Your task to perform on an android device: Go to calendar. Show me events next week Image 0: 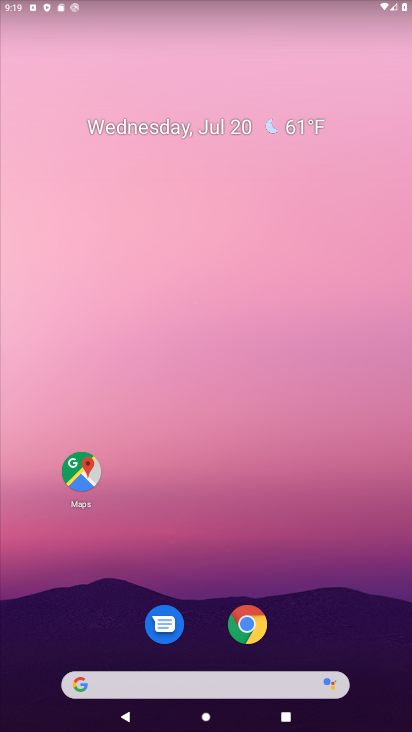
Step 0: drag from (201, 543) to (201, 232)
Your task to perform on an android device: Go to calendar. Show me events next week Image 1: 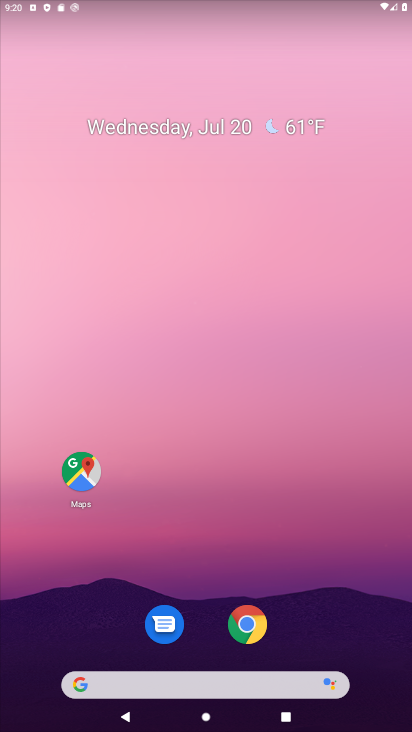
Step 1: drag from (180, 582) to (209, 181)
Your task to perform on an android device: Go to calendar. Show me events next week Image 2: 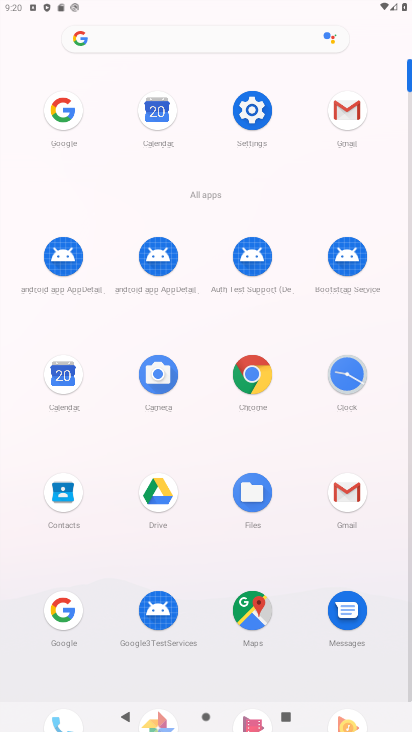
Step 2: click (73, 384)
Your task to perform on an android device: Go to calendar. Show me events next week Image 3: 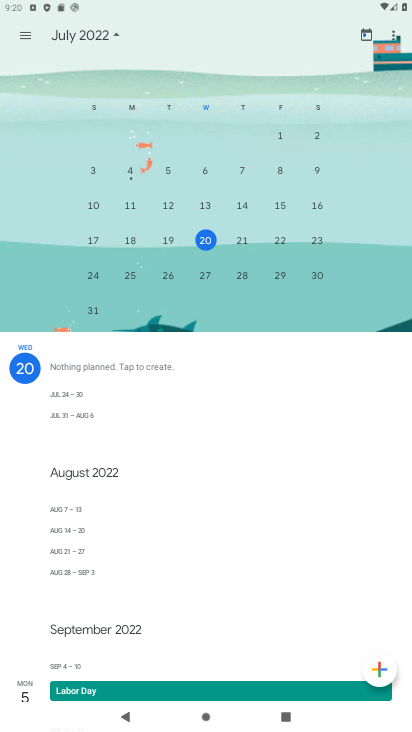
Step 3: click (95, 275)
Your task to perform on an android device: Go to calendar. Show me events next week Image 4: 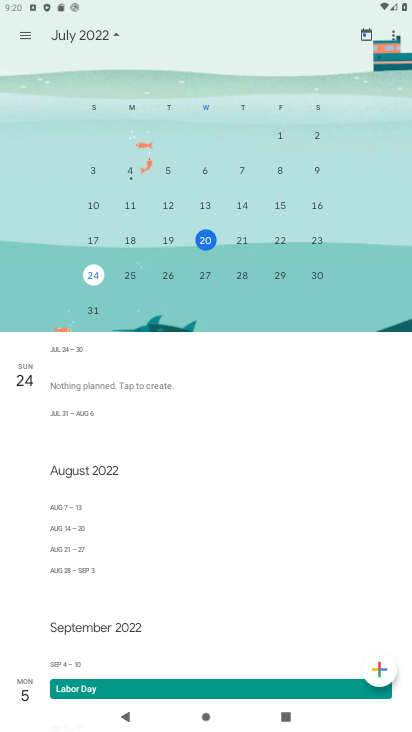
Step 4: click (117, 282)
Your task to perform on an android device: Go to calendar. Show me events next week Image 5: 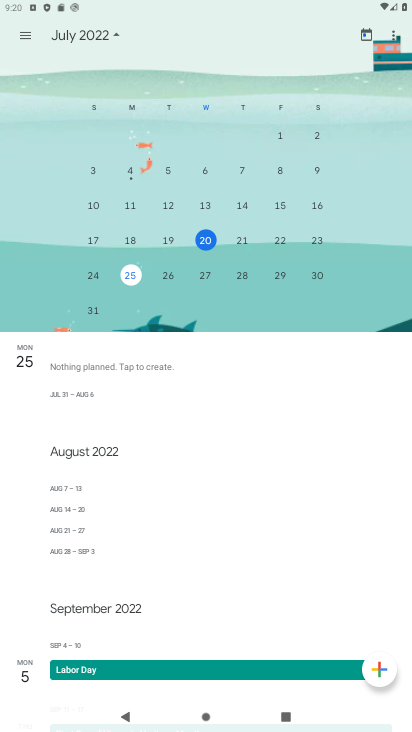
Step 5: click (160, 277)
Your task to perform on an android device: Go to calendar. Show me events next week Image 6: 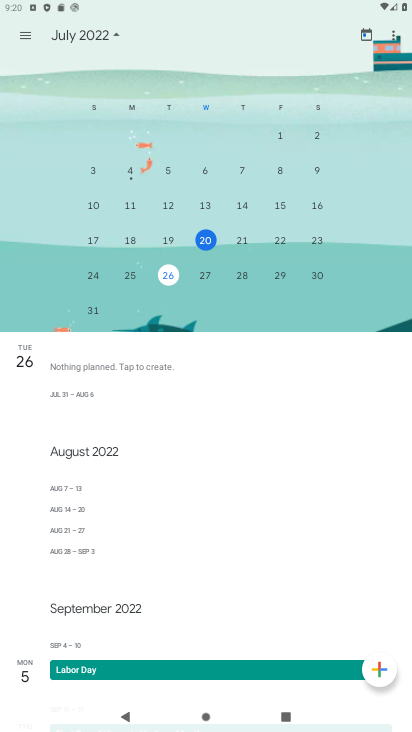
Step 6: click (184, 270)
Your task to perform on an android device: Go to calendar. Show me events next week Image 7: 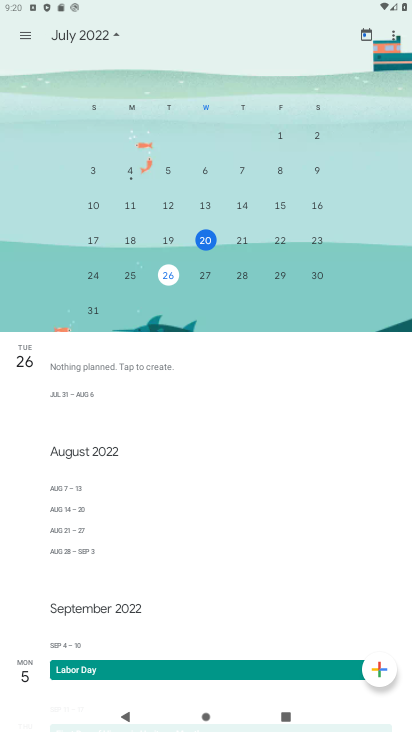
Step 7: click (204, 271)
Your task to perform on an android device: Go to calendar. Show me events next week Image 8: 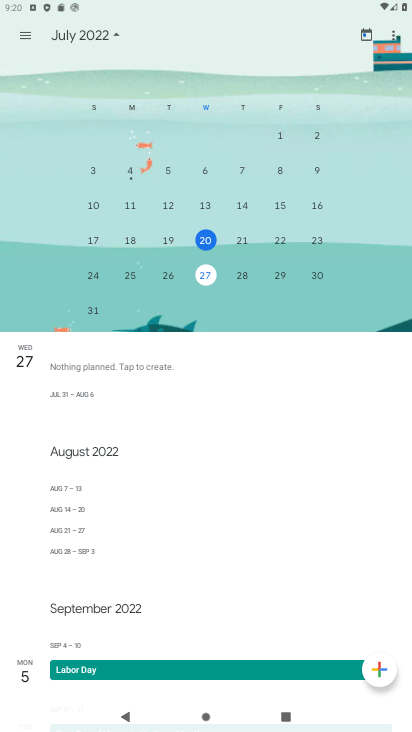
Step 8: task complete